Your task to perform on an android device: turn off translation in the chrome app Image 0: 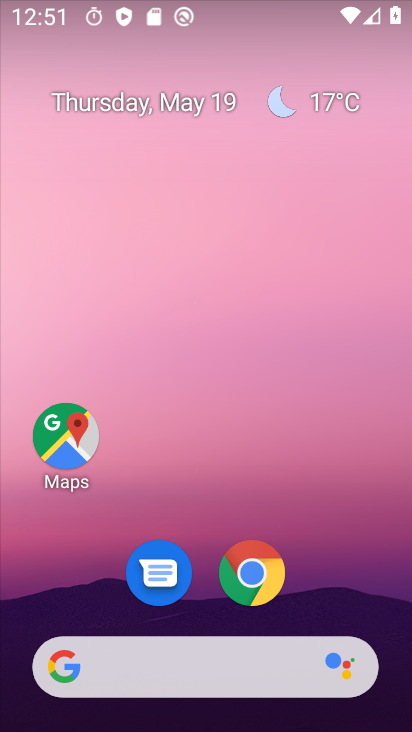
Step 0: click (254, 569)
Your task to perform on an android device: turn off translation in the chrome app Image 1: 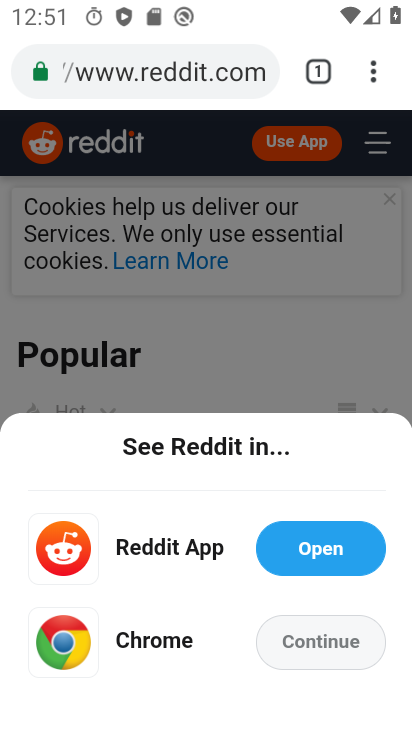
Step 1: click (384, 84)
Your task to perform on an android device: turn off translation in the chrome app Image 2: 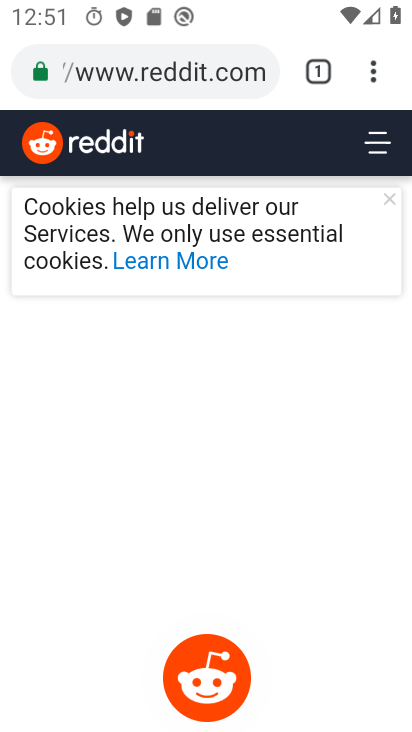
Step 2: drag from (379, 61) to (122, 566)
Your task to perform on an android device: turn off translation in the chrome app Image 3: 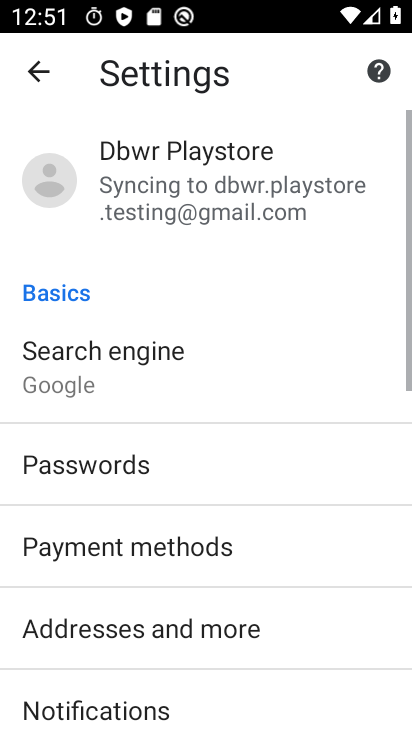
Step 3: drag from (137, 576) to (223, 81)
Your task to perform on an android device: turn off translation in the chrome app Image 4: 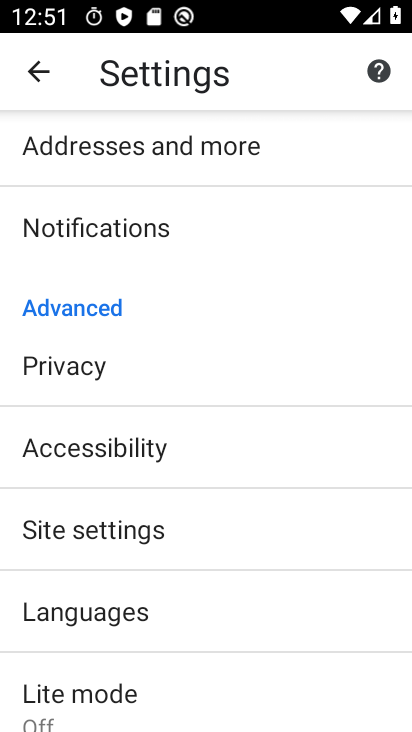
Step 4: click (136, 621)
Your task to perform on an android device: turn off translation in the chrome app Image 5: 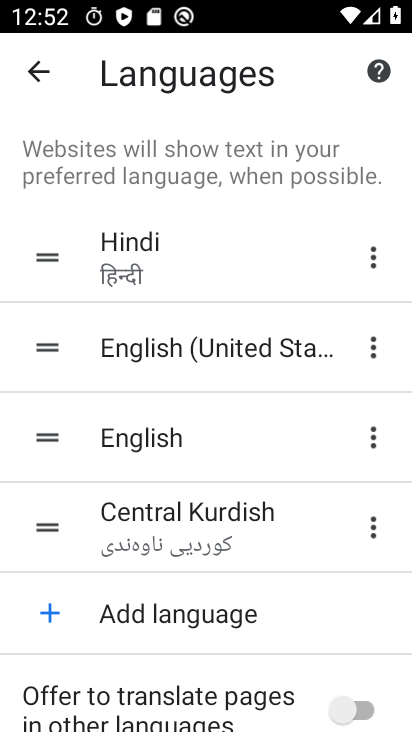
Step 5: task complete